Your task to perform on an android device: set an alarm Image 0: 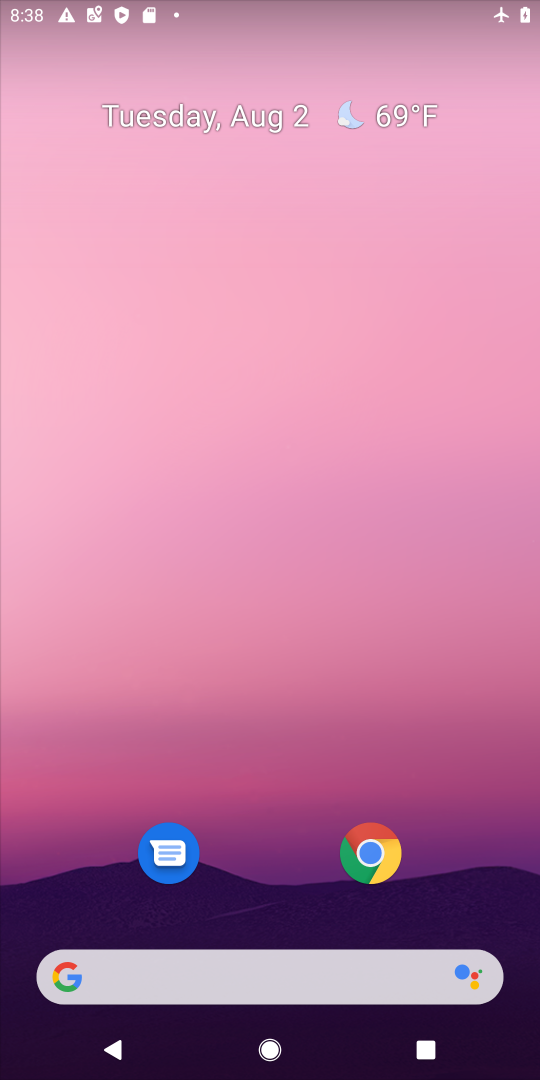
Step 0: drag from (260, 901) to (226, 183)
Your task to perform on an android device: set an alarm Image 1: 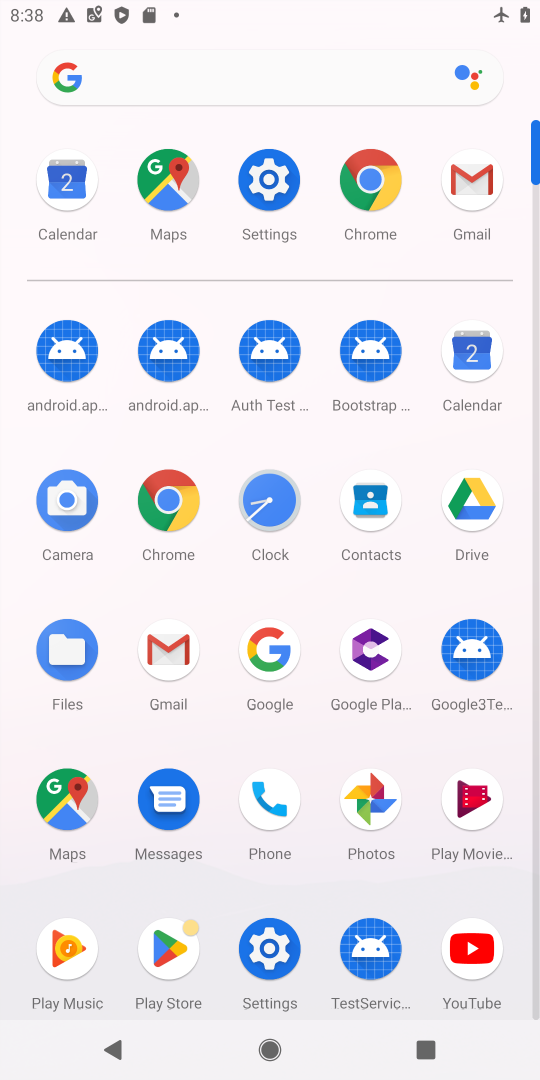
Step 1: click (280, 497)
Your task to perform on an android device: set an alarm Image 2: 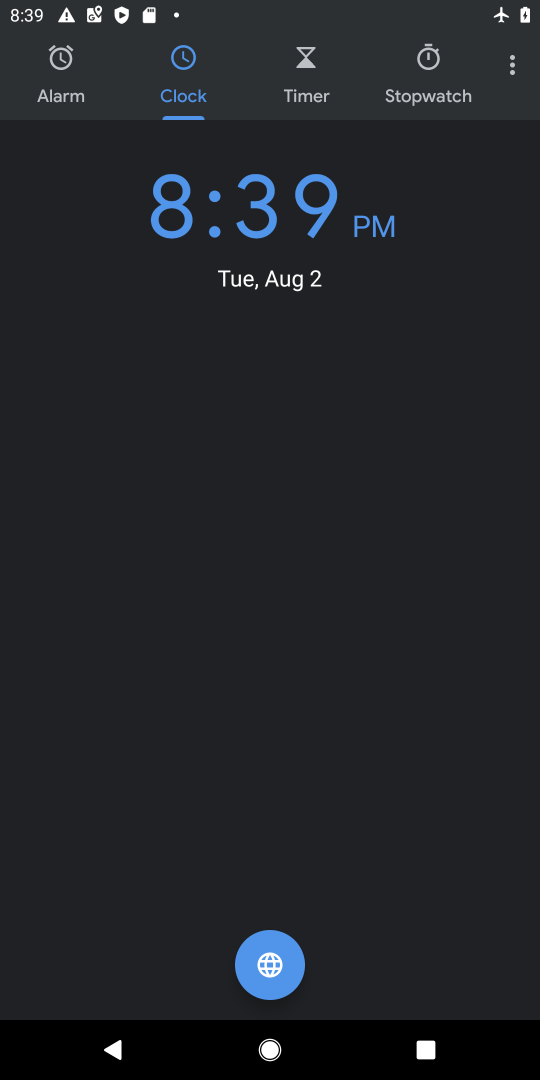
Step 2: click (53, 89)
Your task to perform on an android device: set an alarm Image 3: 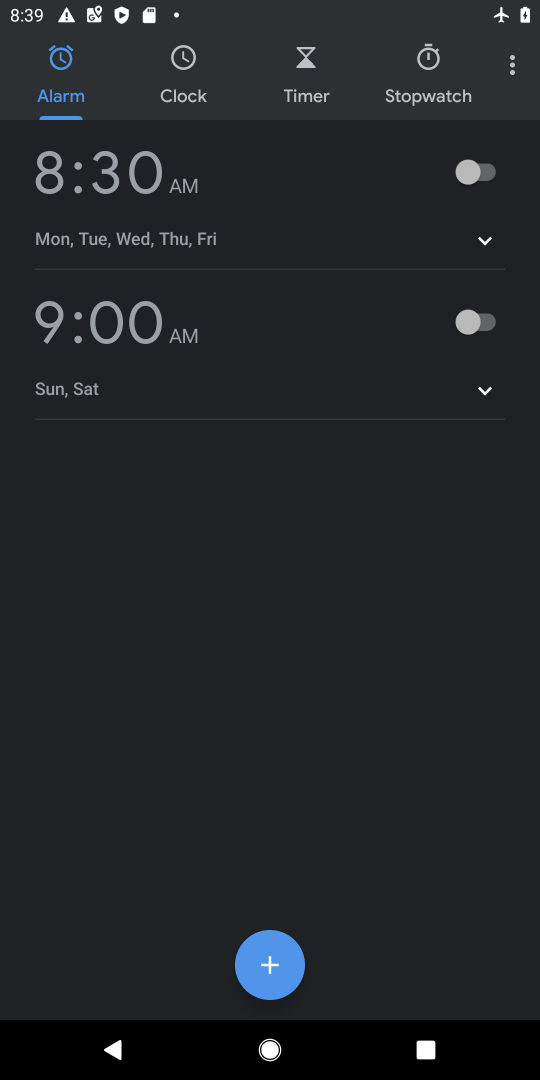
Step 3: click (278, 977)
Your task to perform on an android device: set an alarm Image 4: 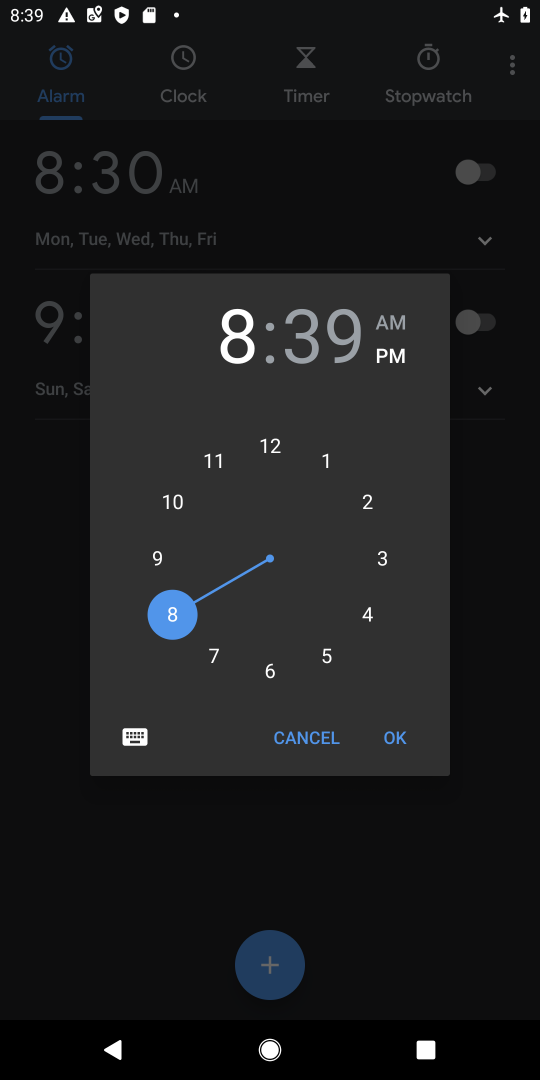
Step 4: click (399, 756)
Your task to perform on an android device: set an alarm Image 5: 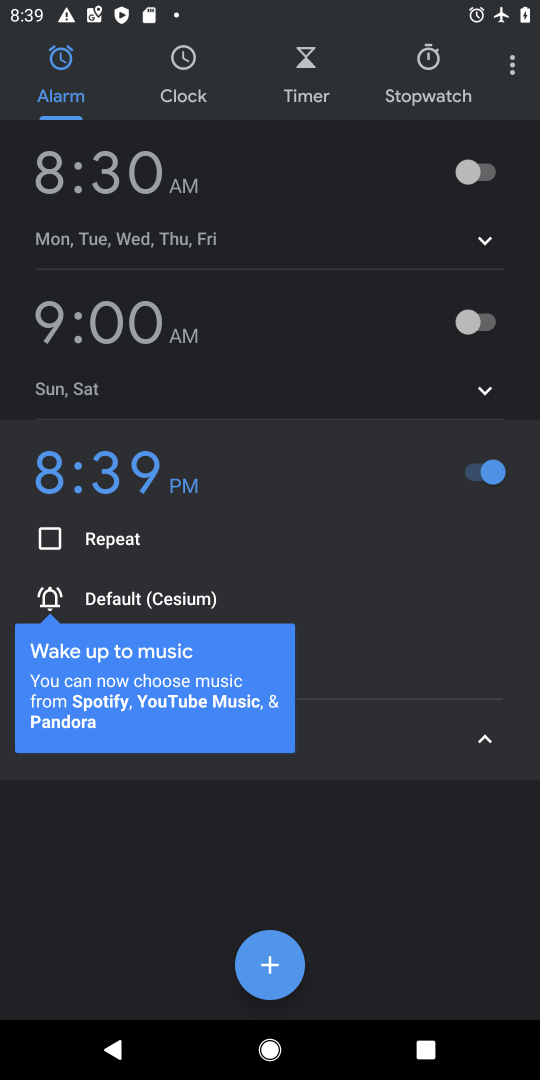
Step 5: task complete